Your task to perform on an android device: choose inbox layout in the gmail app Image 0: 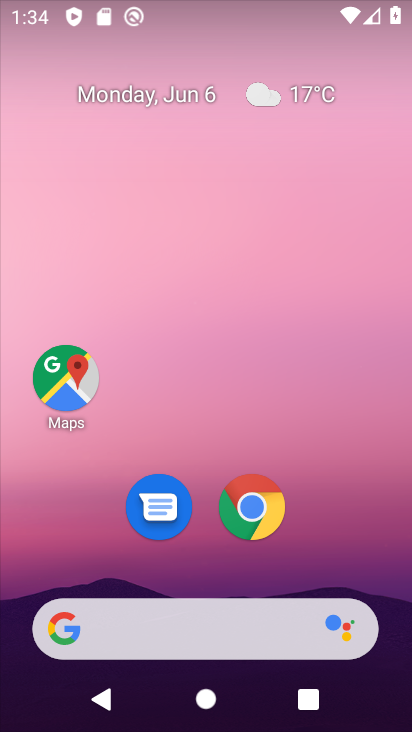
Step 0: drag from (398, 574) to (284, 88)
Your task to perform on an android device: choose inbox layout in the gmail app Image 1: 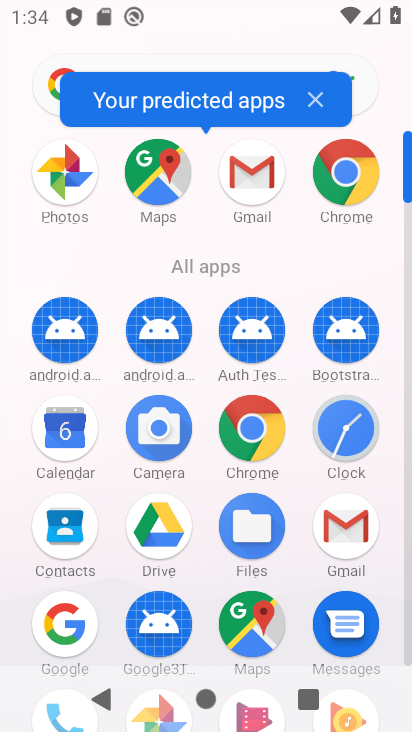
Step 1: click (276, 186)
Your task to perform on an android device: choose inbox layout in the gmail app Image 2: 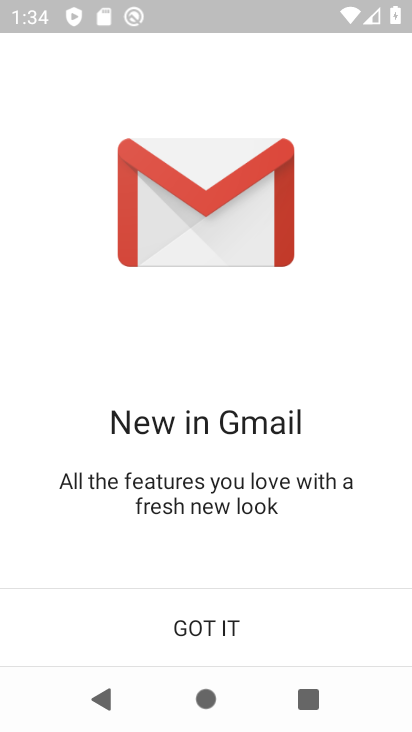
Step 2: click (214, 589)
Your task to perform on an android device: choose inbox layout in the gmail app Image 3: 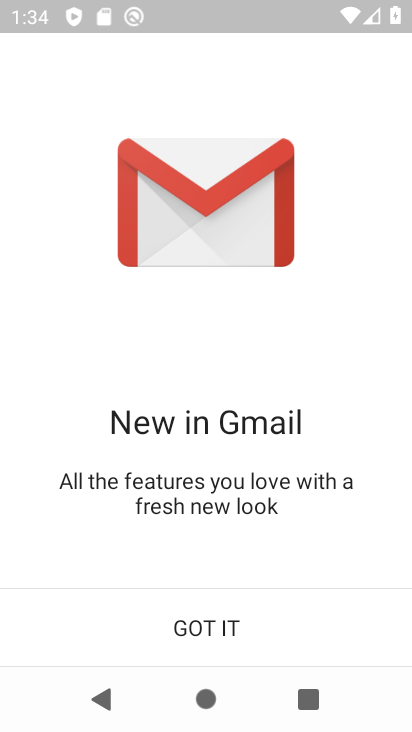
Step 3: click (231, 625)
Your task to perform on an android device: choose inbox layout in the gmail app Image 4: 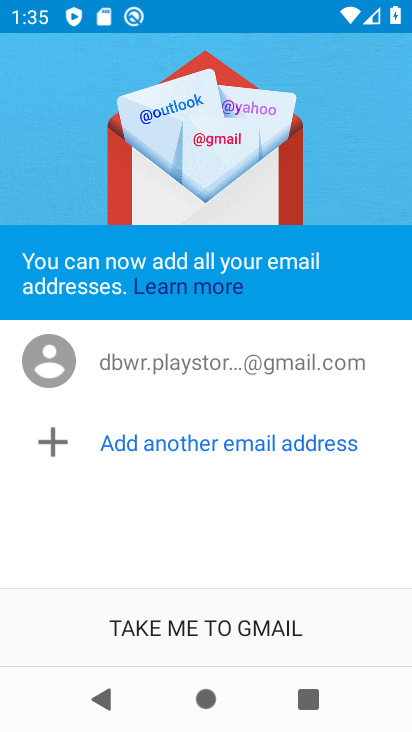
Step 4: click (231, 625)
Your task to perform on an android device: choose inbox layout in the gmail app Image 5: 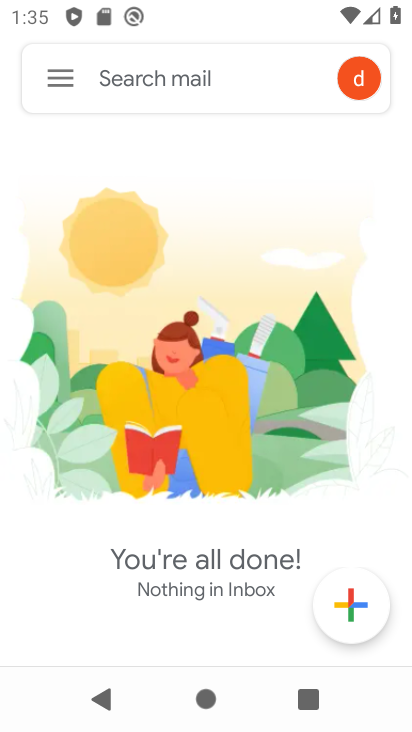
Step 5: click (64, 96)
Your task to perform on an android device: choose inbox layout in the gmail app Image 6: 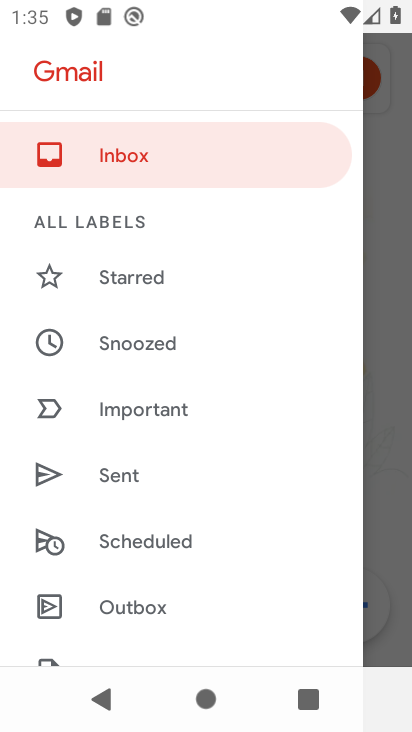
Step 6: drag from (170, 630) to (170, 295)
Your task to perform on an android device: choose inbox layout in the gmail app Image 7: 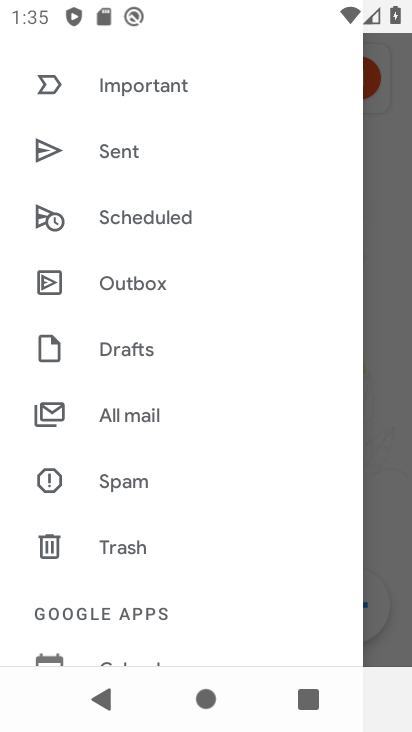
Step 7: drag from (157, 570) to (137, 132)
Your task to perform on an android device: choose inbox layout in the gmail app Image 8: 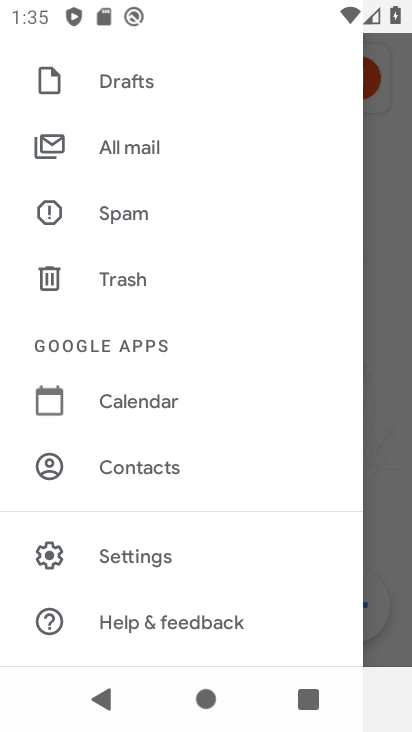
Step 8: click (151, 548)
Your task to perform on an android device: choose inbox layout in the gmail app Image 9: 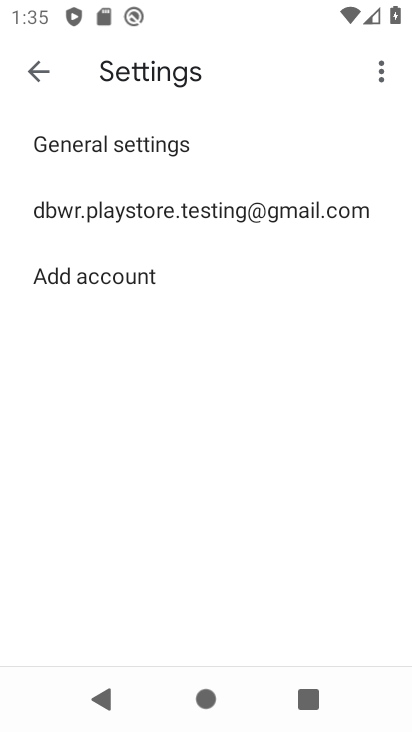
Step 9: click (162, 231)
Your task to perform on an android device: choose inbox layout in the gmail app Image 10: 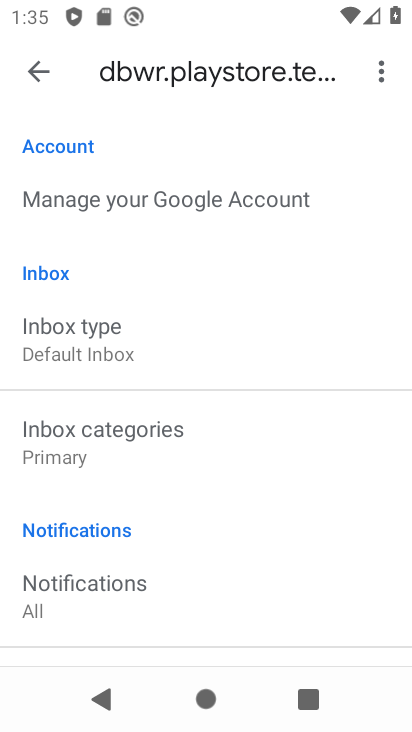
Step 10: click (136, 342)
Your task to perform on an android device: choose inbox layout in the gmail app Image 11: 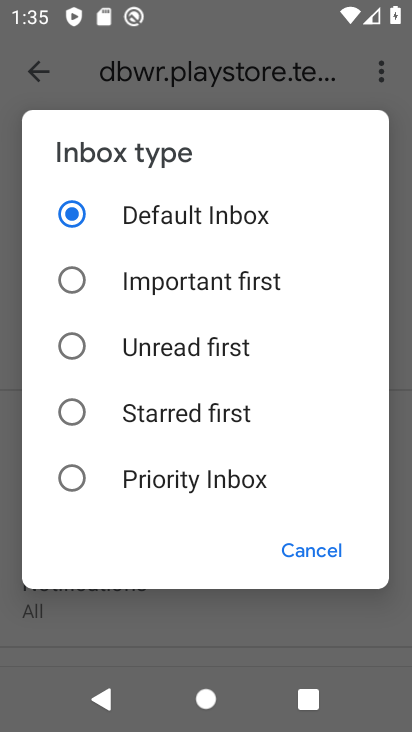
Step 11: click (144, 297)
Your task to perform on an android device: choose inbox layout in the gmail app Image 12: 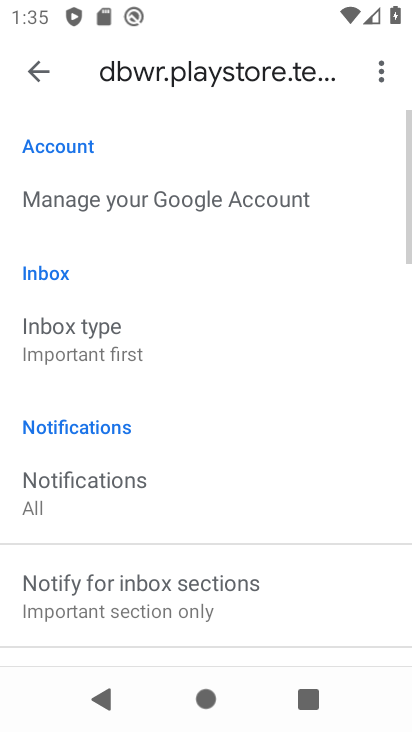
Step 12: task complete